Your task to perform on an android device: Open Chrome and go to the settings page Image 0: 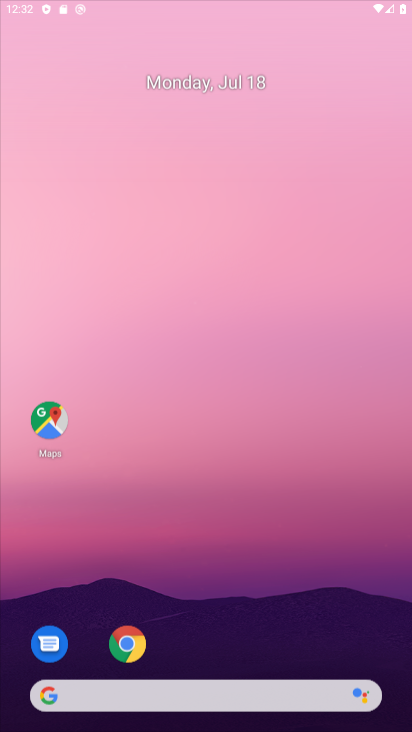
Step 0: press home button
Your task to perform on an android device: Open Chrome and go to the settings page Image 1: 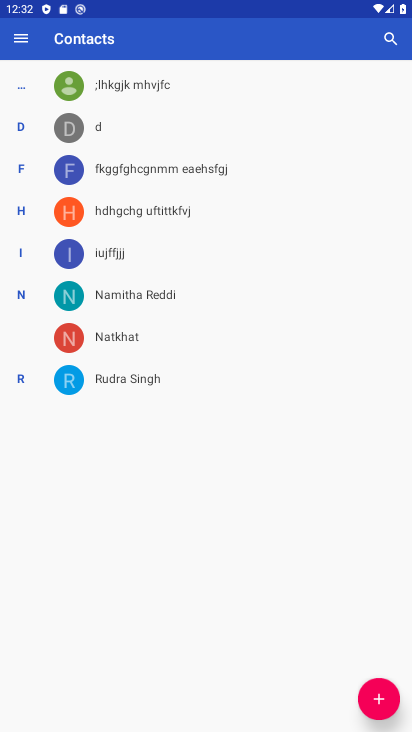
Step 1: drag from (211, 93) to (218, 31)
Your task to perform on an android device: Open Chrome and go to the settings page Image 2: 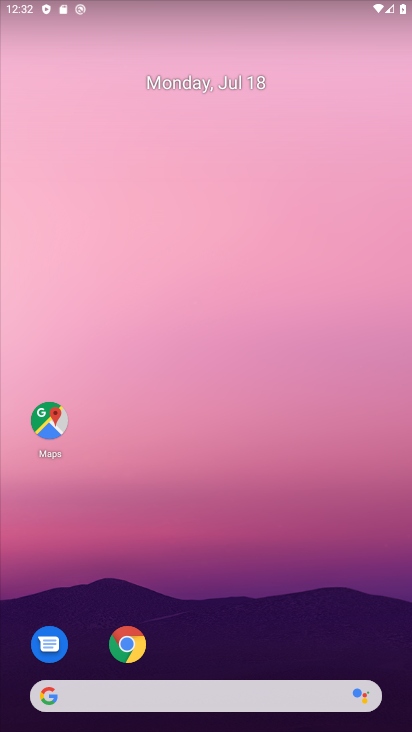
Step 2: click (123, 644)
Your task to perform on an android device: Open Chrome and go to the settings page Image 3: 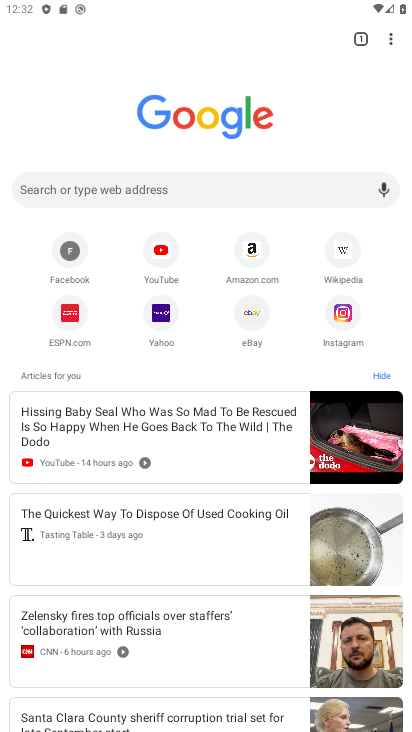
Step 3: click (391, 39)
Your task to perform on an android device: Open Chrome and go to the settings page Image 4: 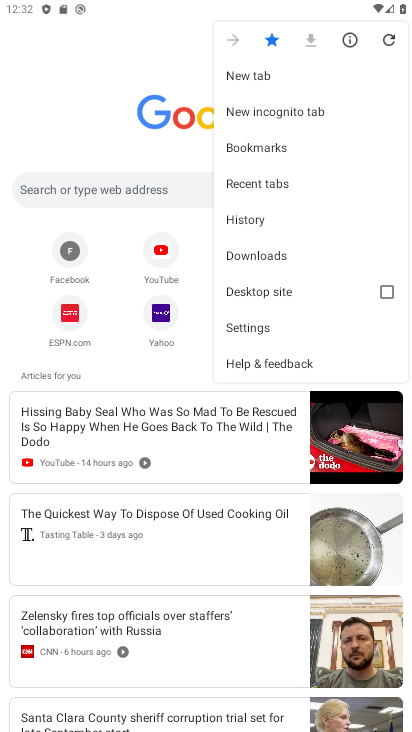
Step 4: click (279, 324)
Your task to perform on an android device: Open Chrome and go to the settings page Image 5: 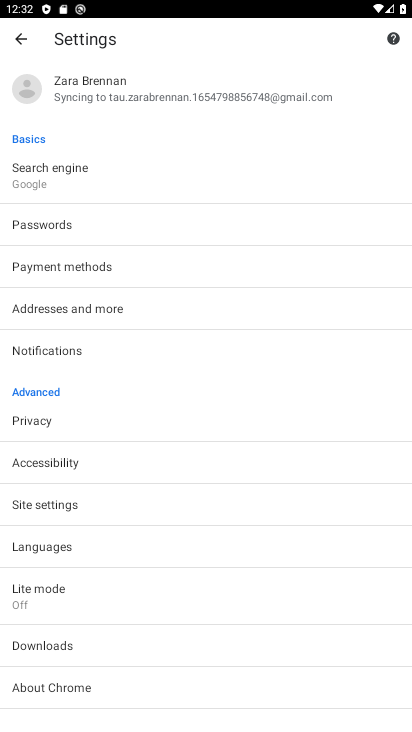
Step 5: task complete